Your task to perform on an android device: Go to ESPN.com Image 0: 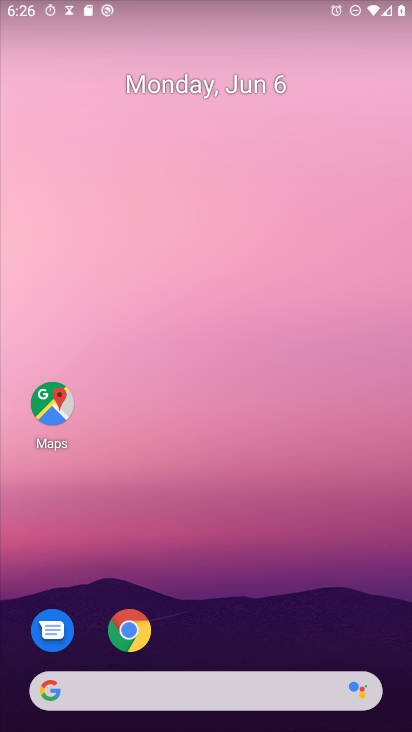
Step 0: click (139, 645)
Your task to perform on an android device: Go to ESPN.com Image 1: 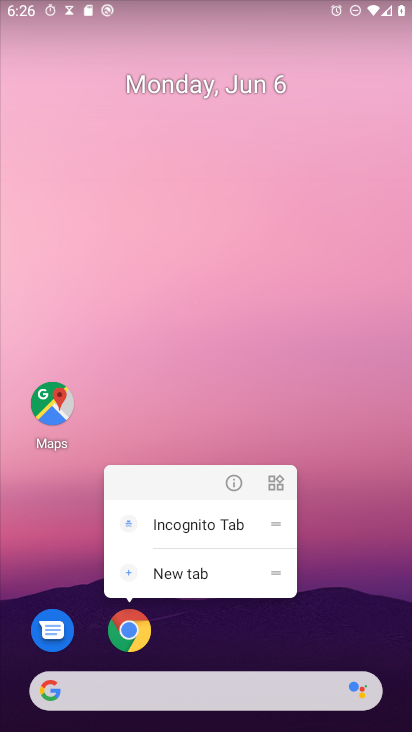
Step 1: click (129, 624)
Your task to perform on an android device: Go to ESPN.com Image 2: 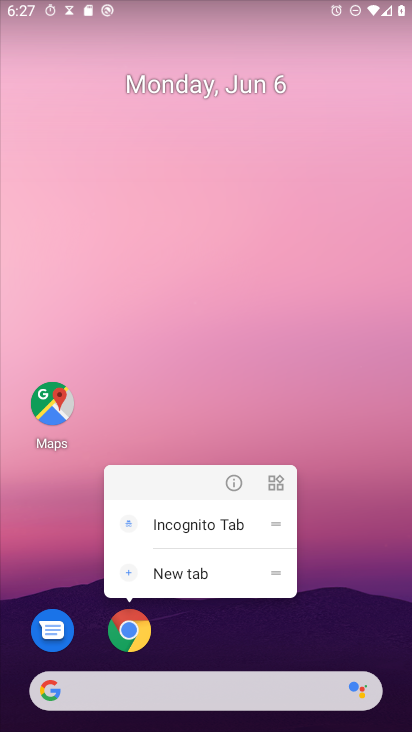
Step 2: click (126, 637)
Your task to perform on an android device: Go to ESPN.com Image 3: 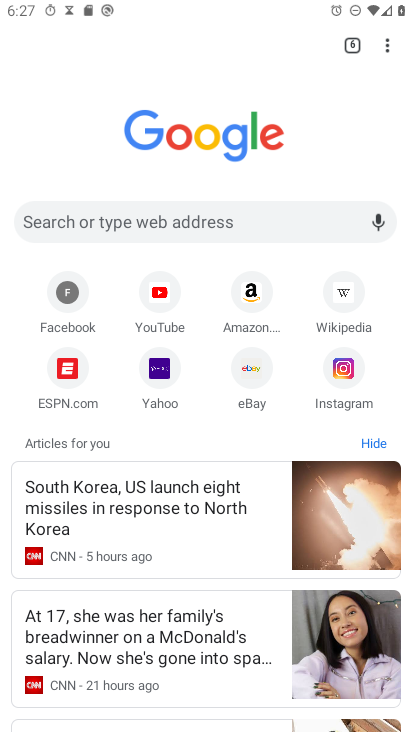
Step 3: click (61, 363)
Your task to perform on an android device: Go to ESPN.com Image 4: 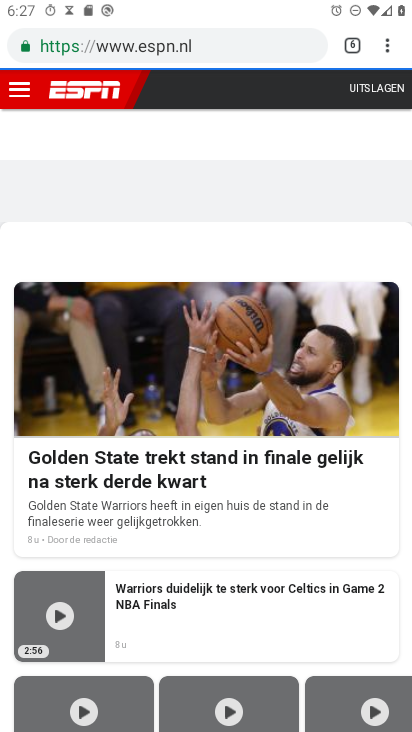
Step 4: task complete